Your task to perform on an android device: turn off sleep mode Image 0: 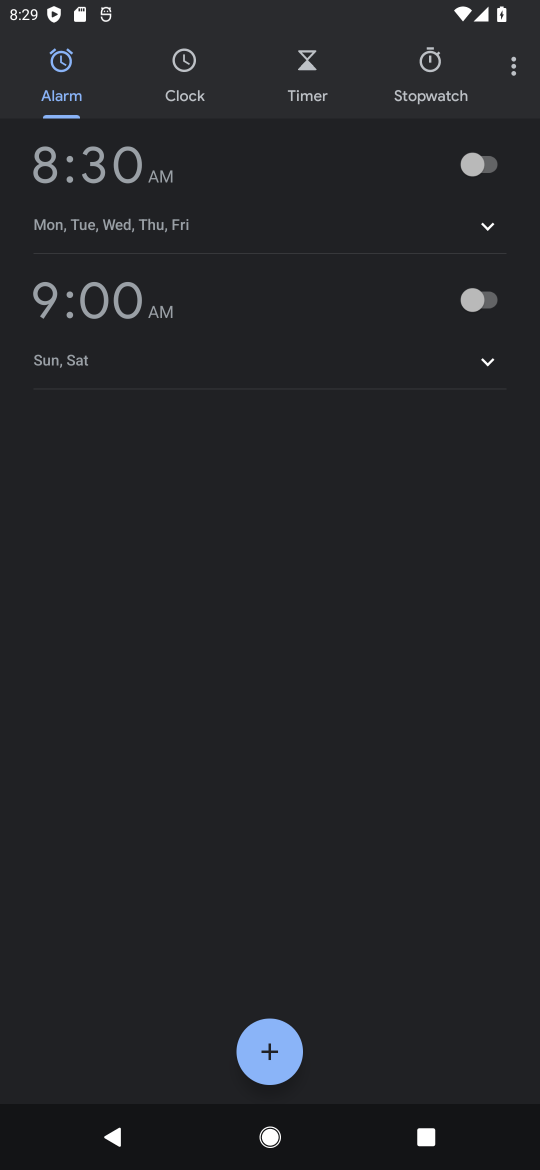
Step 0: press home button
Your task to perform on an android device: turn off sleep mode Image 1: 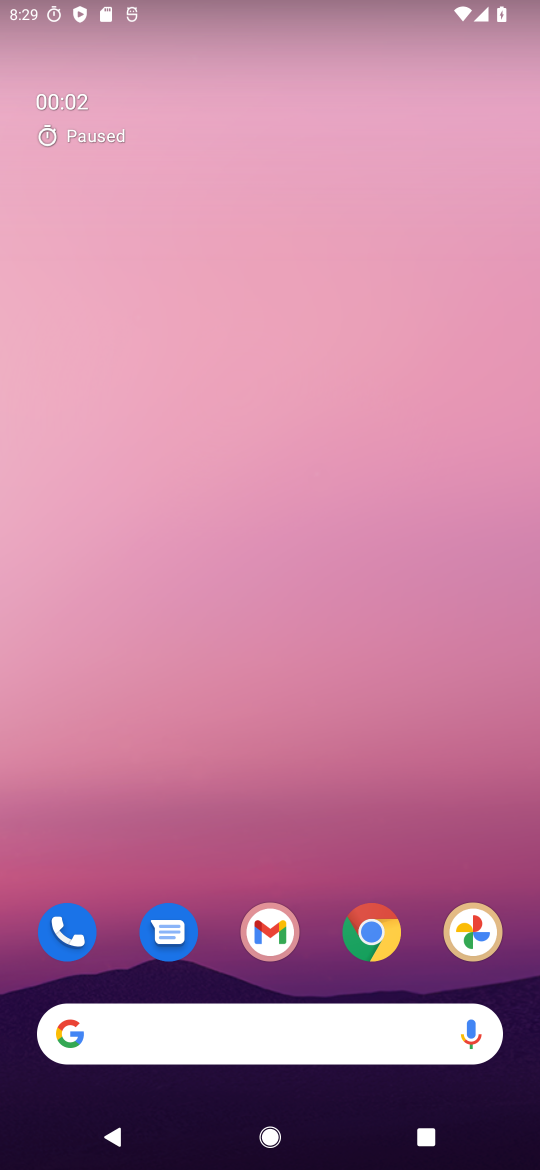
Step 1: drag from (275, 1026) to (432, 156)
Your task to perform on an android device: turn off sleep mode Image 2: 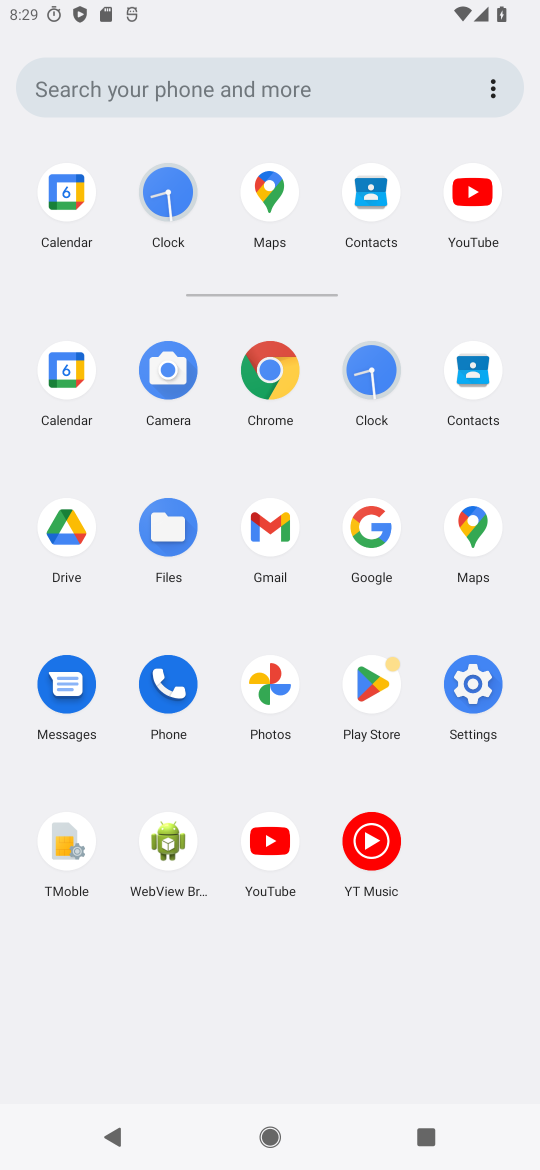
Step 2: click (468, 667)
Your task to perform on an android device: turn off sleep mode Image 3: 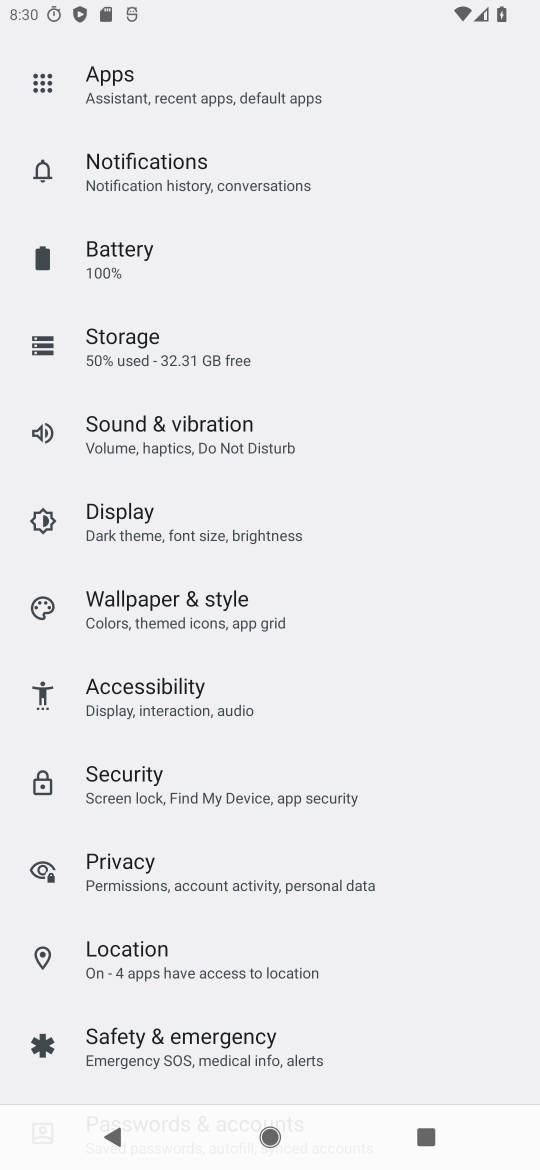
Step 3: click (182, 505)
Your task to perform on an android device: turn off sleep mode Image 4: 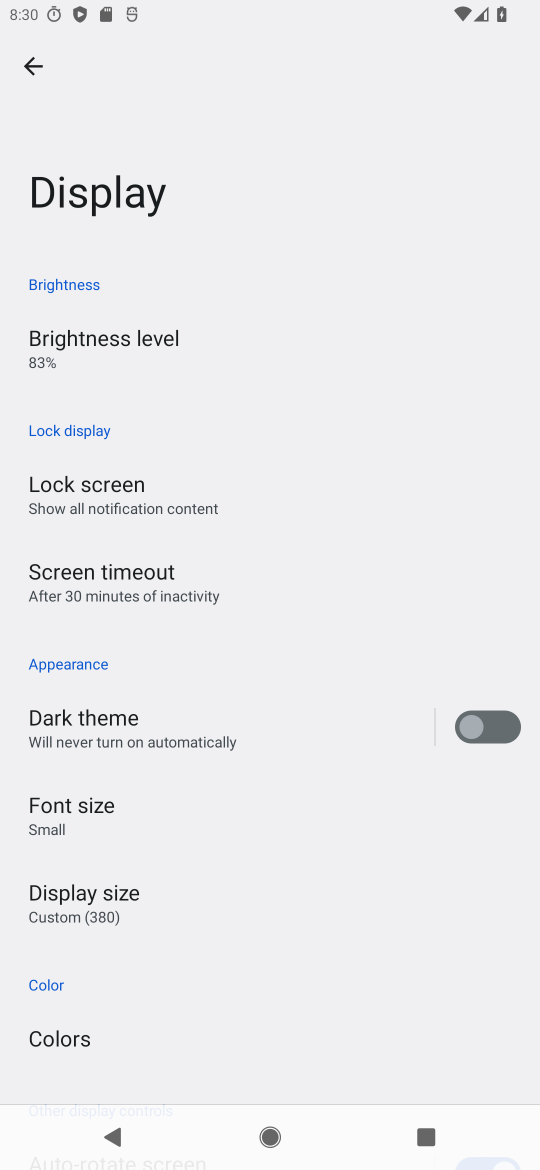
Step 4: task complete